Your task to perform on an android device: What's on my calendar tomorrow? Image 0: 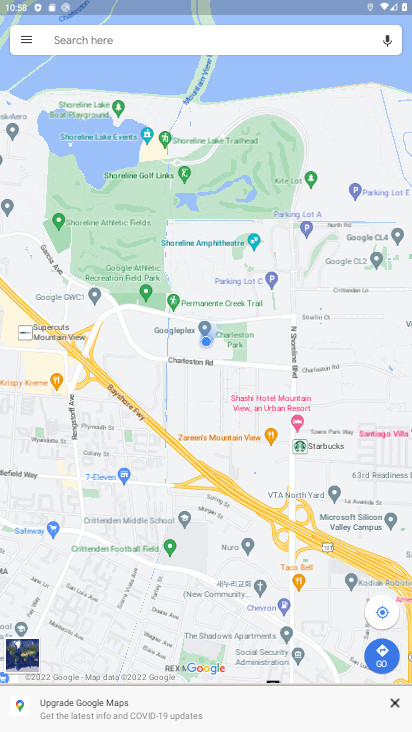
Step 0: press home button
Your task to perform on an android device: What's on my calendar tomorrow? Image 1: 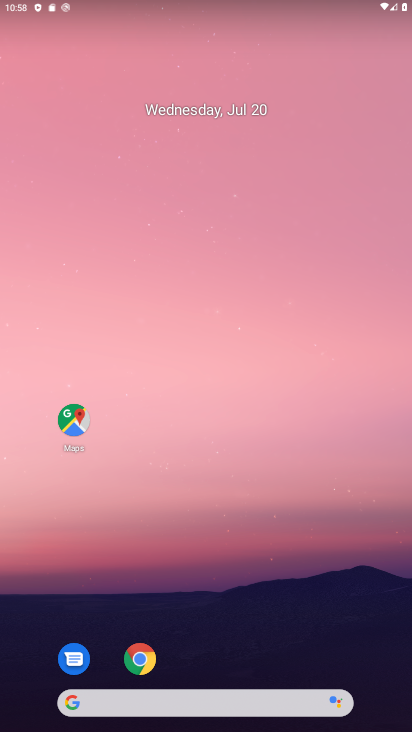
Step 1: drag from (258, 650) to (252, 143)
Your task to perform on an android device: What's on my calendar tomorrow? Image 2: 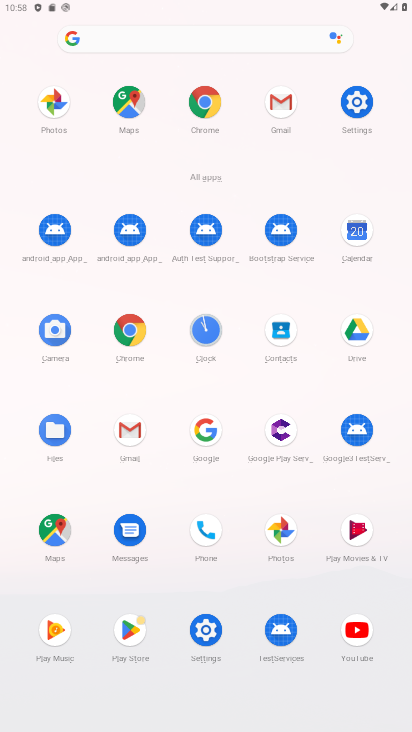
Step 2: click (361, 250)
Your task to perform on an android device: What's on my calendar tomorrow? Image 3: 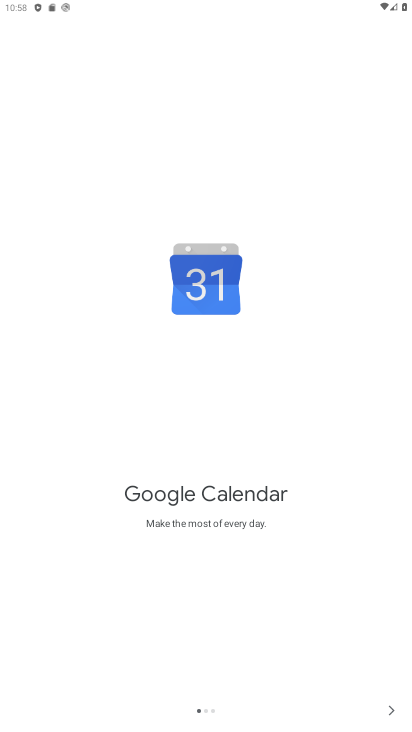
Step 3: click (395, 714)
Your task to perform on an android device: What's on my calendar tomorrow? Image 4: 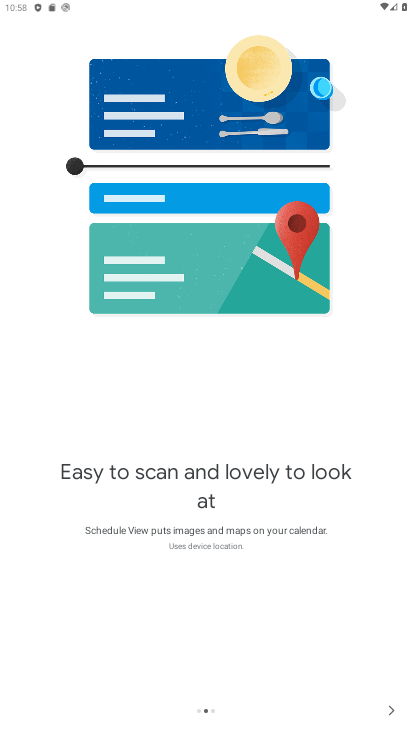
Step 4: click (390, 705)
Your task to perform on an android device: What's on my calendar tomorrow? Image 5: 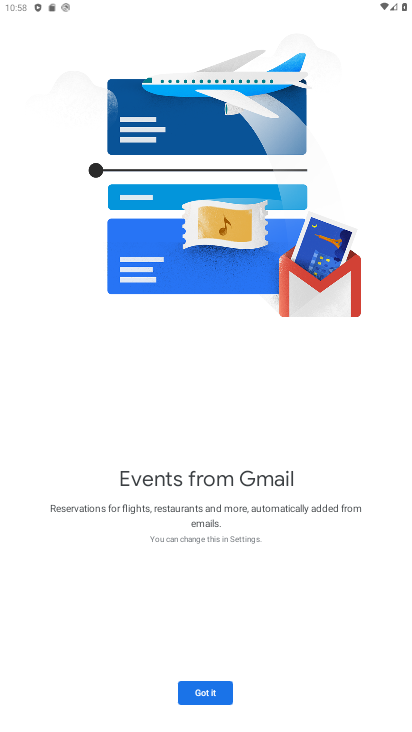
Step 5: click (193, 689)
Your task to perform on an android device: What's on my calendar tomorrow? Image 6: 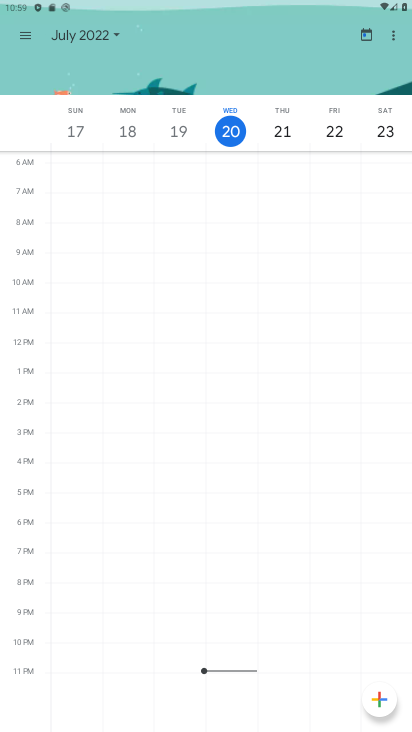
Step 6: click (28, 33)
Your task to perform on an android device: What's on my calendar tomorrow? Image 7: 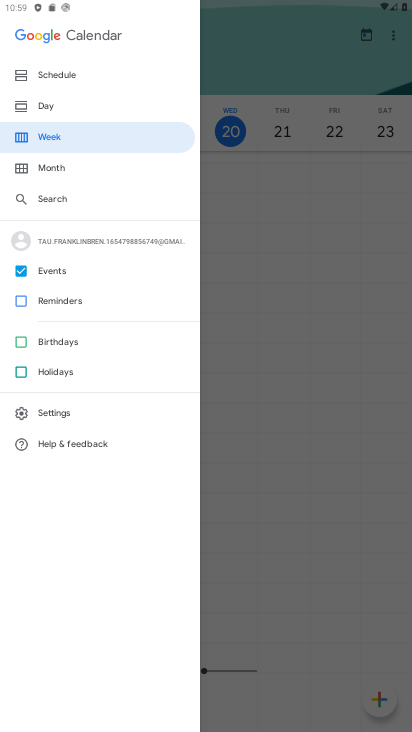
Step 7: click (53, 105)
Your task to perform on an android device: What's on my calendar tomorrow? Image 8: 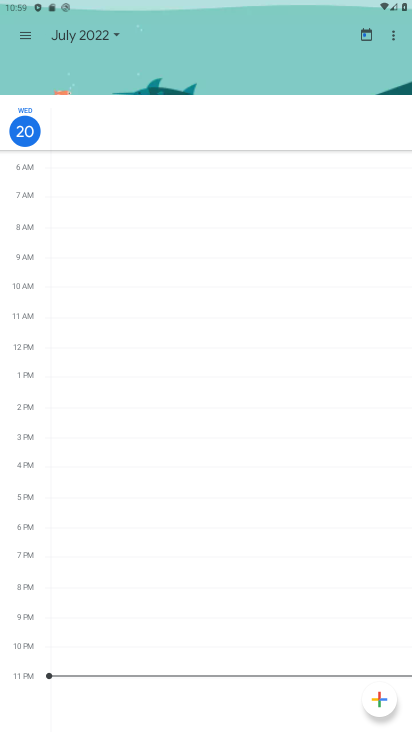
Step 8: click (27, 37)
Your task to perform on an android device: What's on my calendar tomorrow? Image 9: 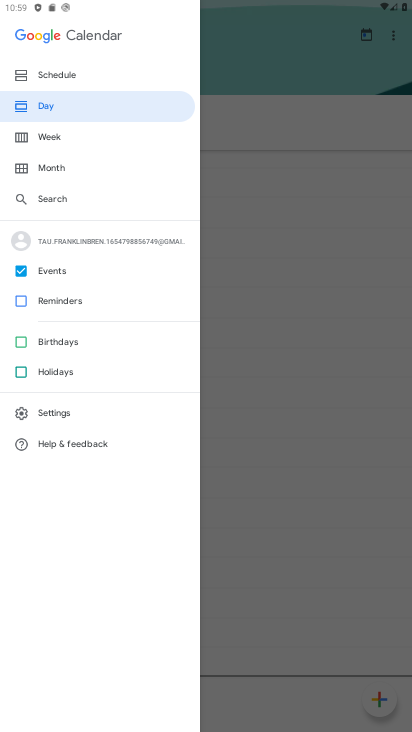
Step 9: click (53, 328)
Your task to perform on an android device: What's on my calendar tomorrow? Image 10: 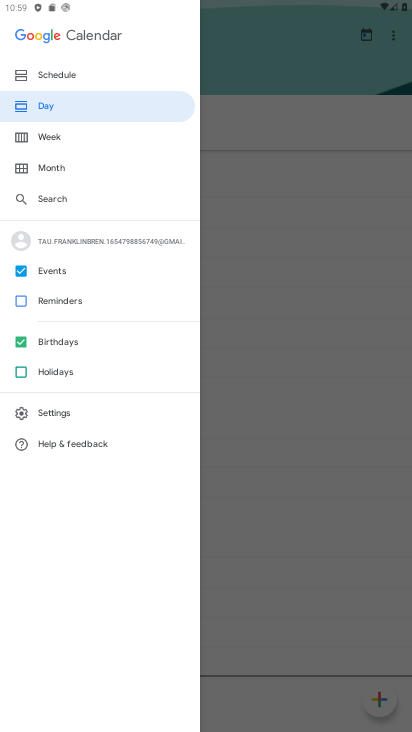
Step 10: click (63, 296)
Your task to perform on an android device: What's on my calendar tomorrow? Image 11: 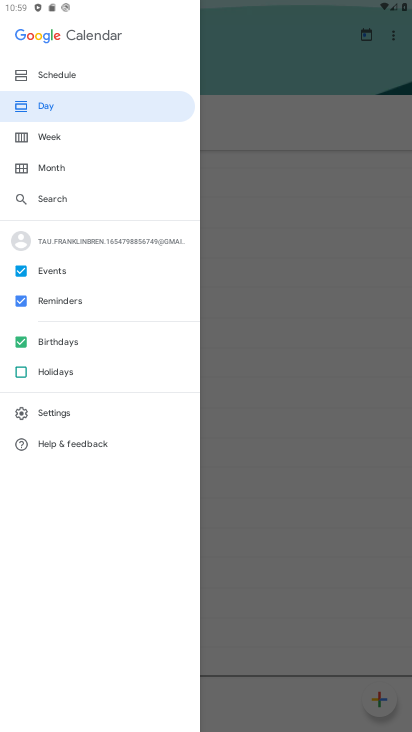
Step 11: click (47, 371)
Your task to perform on an android device: What's on my calendar tomorrow? Image 12: 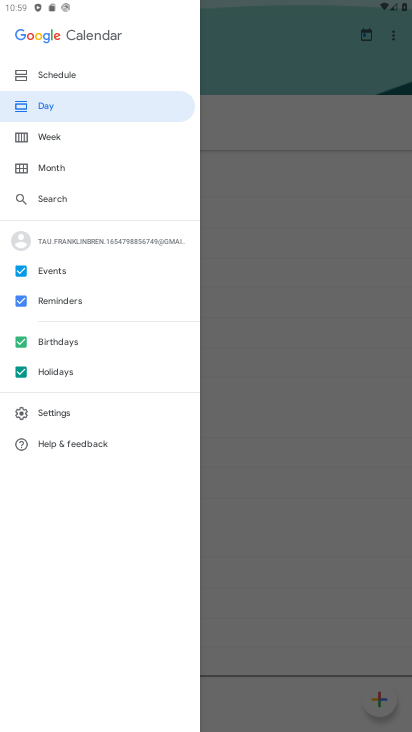
Step 12: click (89, 117)
Your task to perform on an android device: What's on my calendar tomorrow? Image 13: 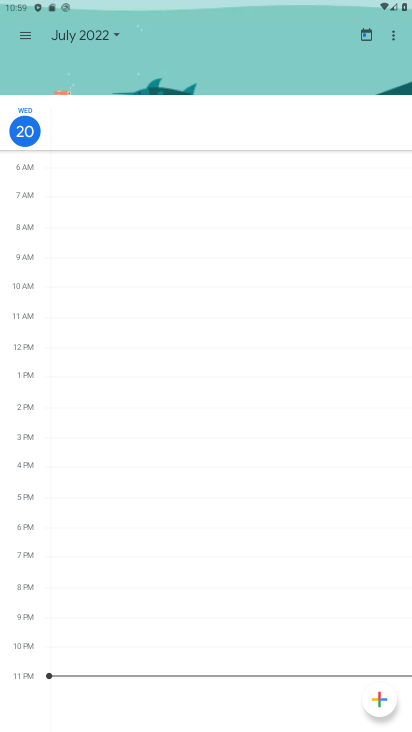
Step 13: click (100, 30)
Your task to perform on an android device: What's on my calendar tomorrow? Image 14: 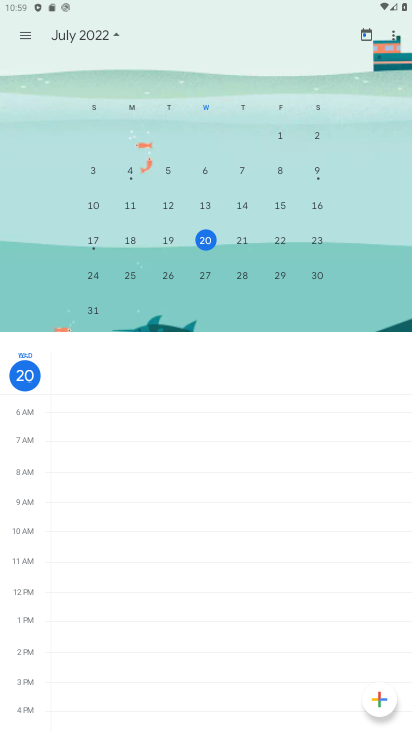
Step 14: click (246, 243)
Your task to perform on an android device: What's on my calendar tomorrow? Image 15: 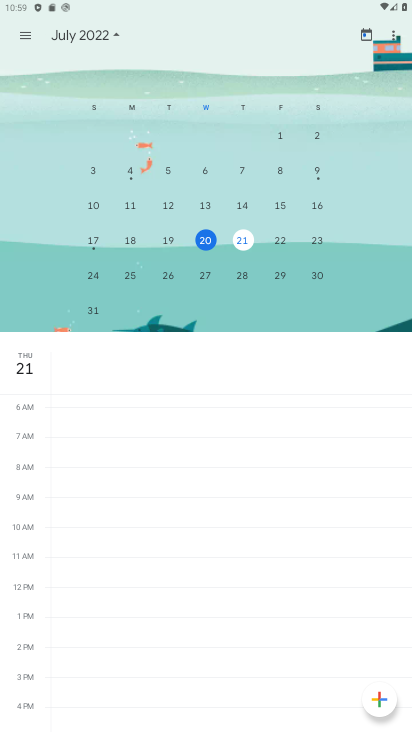
Step 15: task complete